Your task to perform on an android device: turn off airplane mode Image 0: 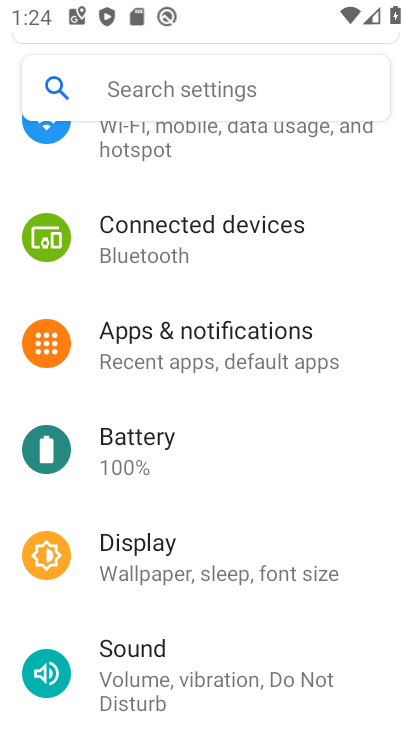
Step 0: click (227, 133)
Your task to perform on an android device: turn off airplane mode Image 1: 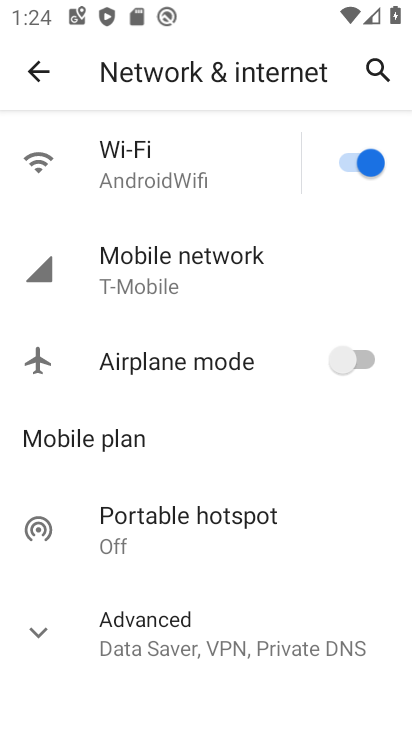
Step 1: task complete